Your task to perform on an android device: Open location settings Image 0: 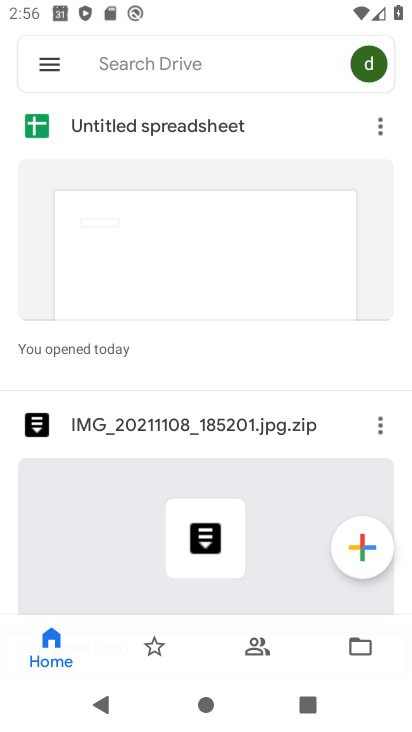
Step 0: press home button
Your task to perform on an android device: Open location settings Image 1: 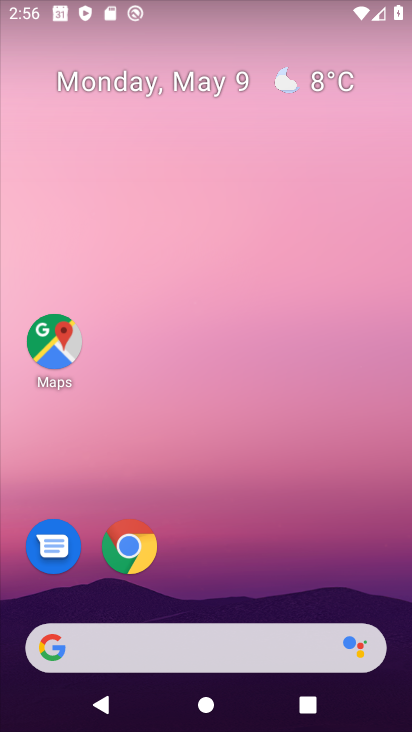
Step 1: drag from (239, 456) to (224, 26)
Your task to perform on an android device: Open location settings Image 2: 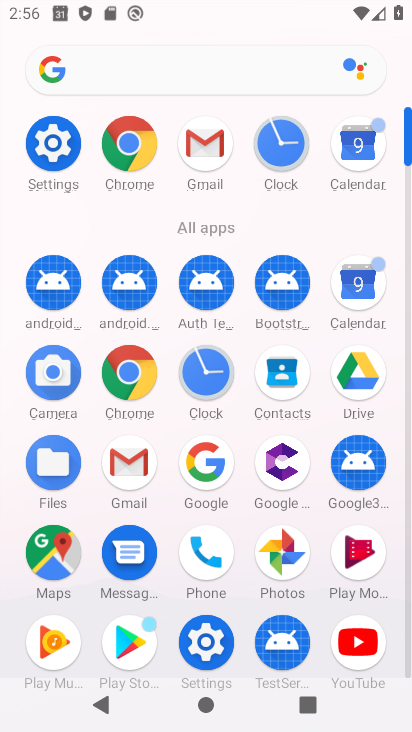
Step 2: click (50, 138)
Your task to perform on an android device: Open location settings Image 3: 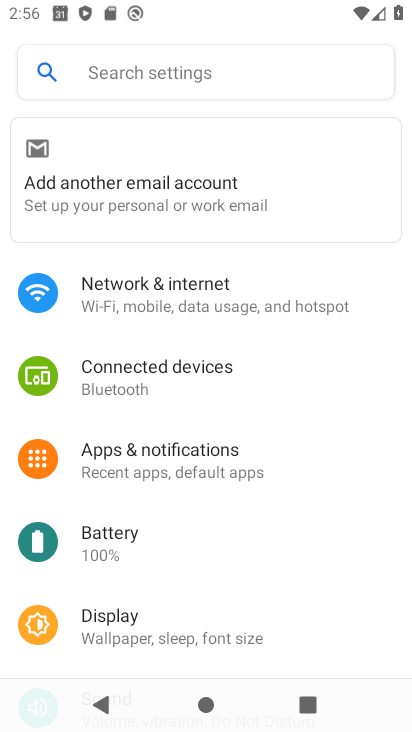
Step 3: drag from (213, 568) to (262, 29)
Your task to perform on an android device: Open location settings Image 4: 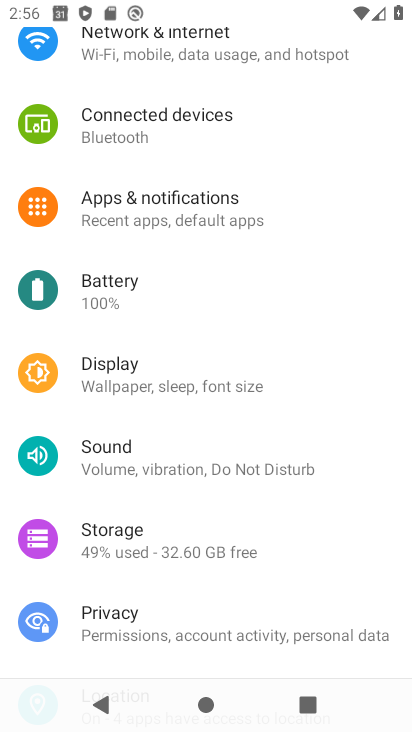
Step 4: drag from (247, 574) to (240, 67)
Your task to perform on an android device: Open location settings Image 5: 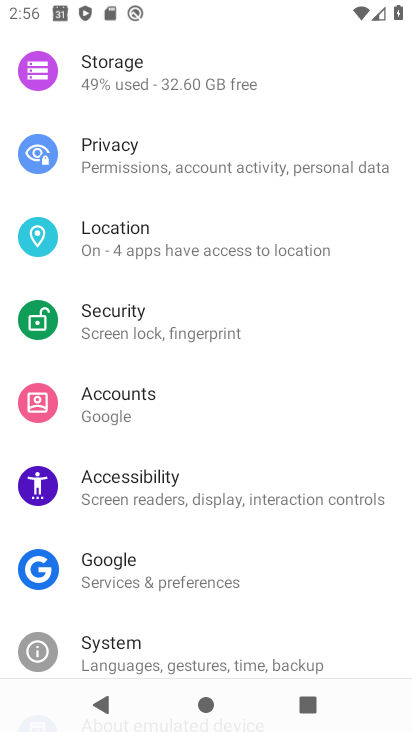
Step 5: click (215, 242)
Your task to perform on an android device: Open location settings Image 6: 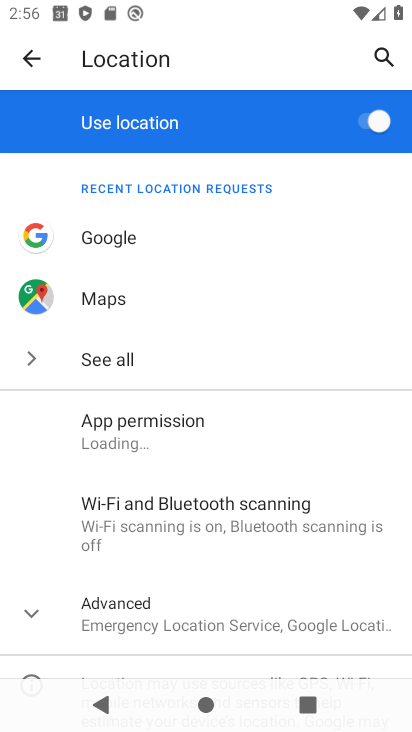
Step 6: task complete